Your task to perform on an android device: change the clock display to digital Image 0: 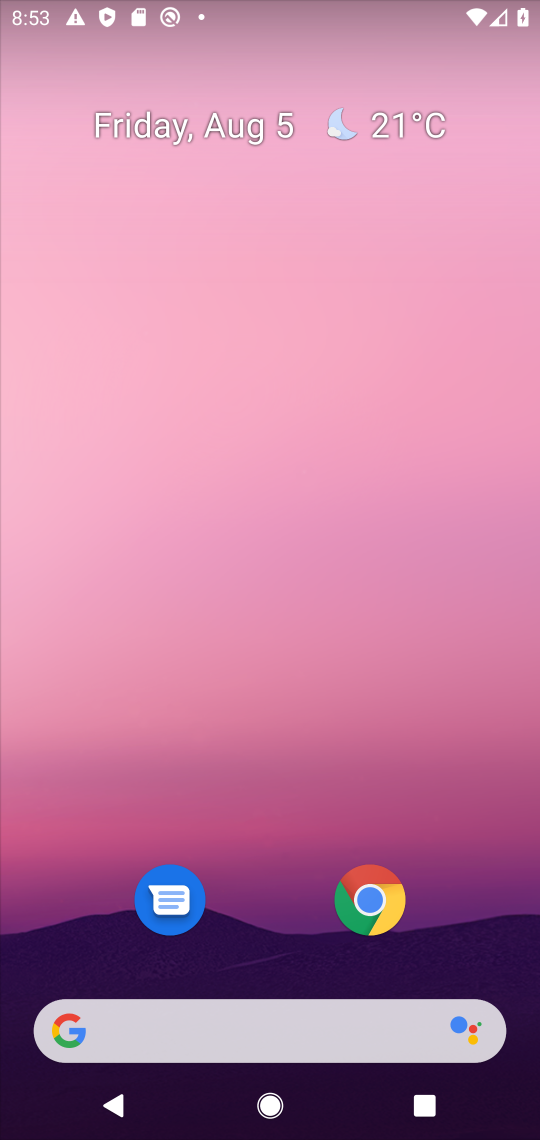
Step 0: press home button
Your task to perform on an android device: change the clock display to digital Image 1: 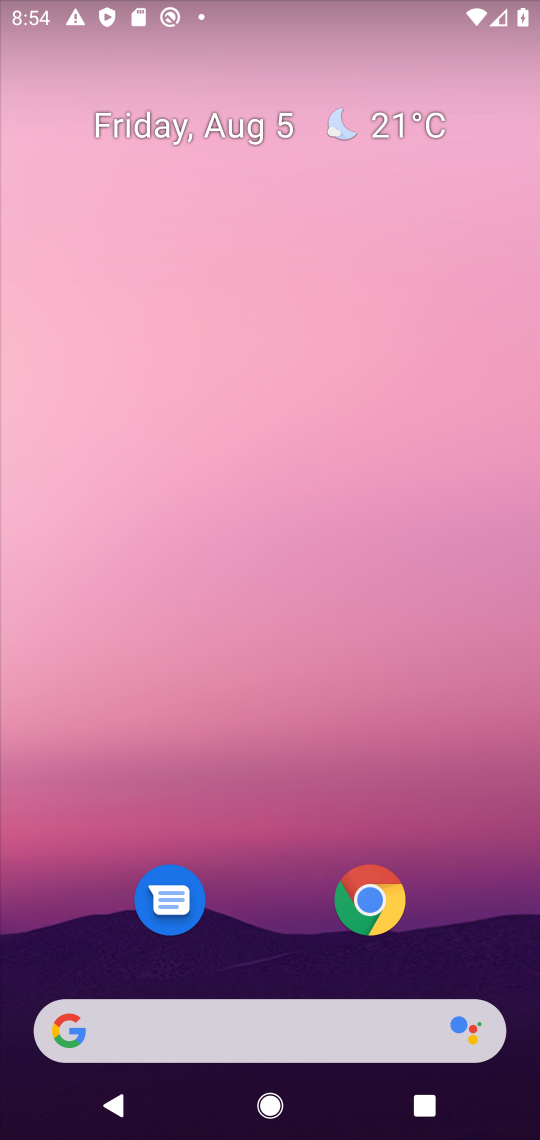
Step 1: drag from (295, 1072) to (348, 192)
Your task to perform on an android device: change the clock display to digital Image 2: 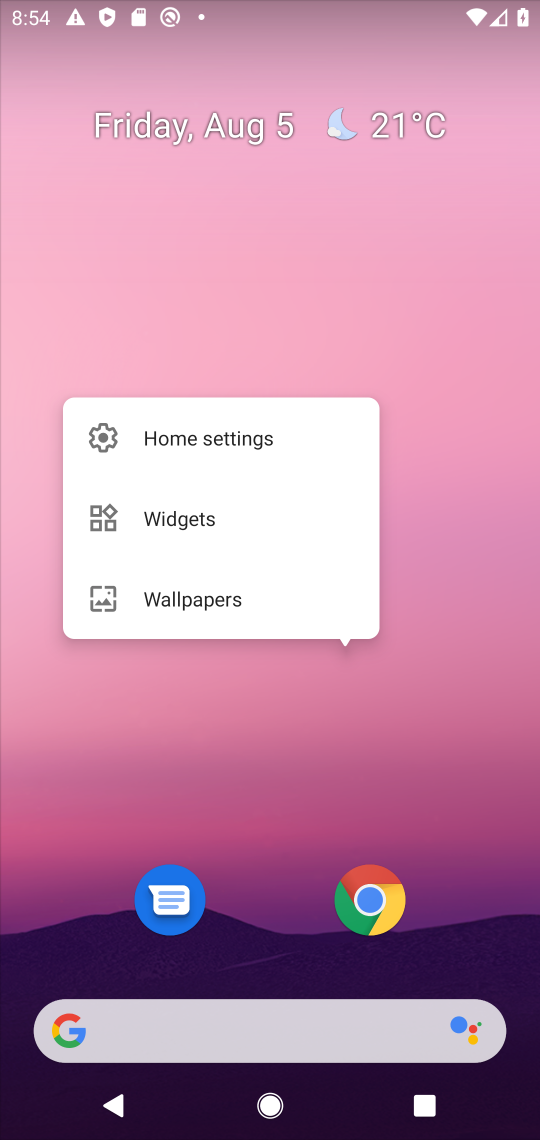
Step 2: click (497, 753)
Your task to perform on an android device: change the clock display to digital Image 3: 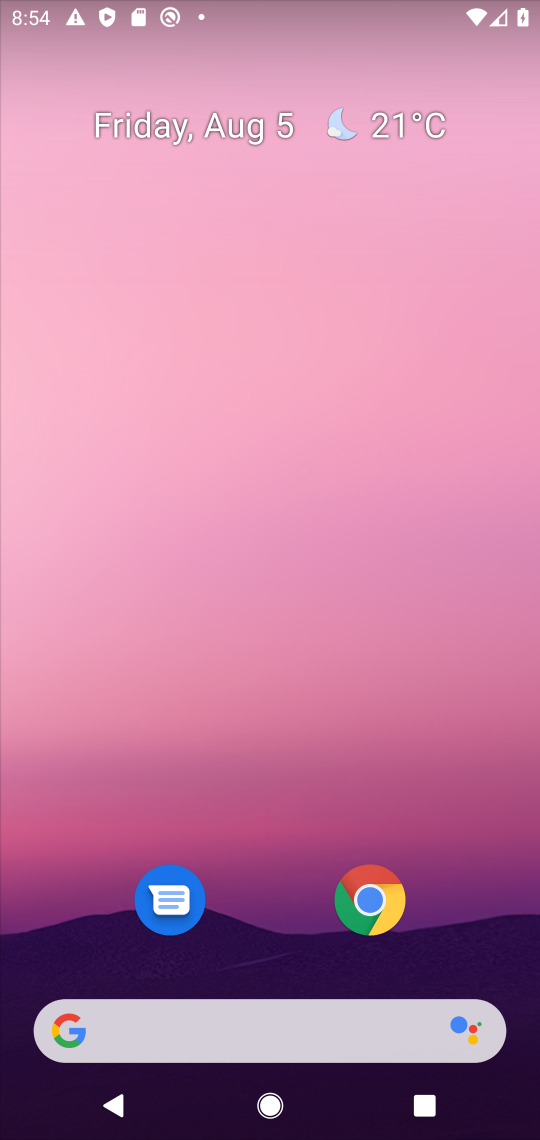
Step 3: drag from (263, 985) to (327, 188)
Your task to perform on an android device: change the clock display to digital Image 4: 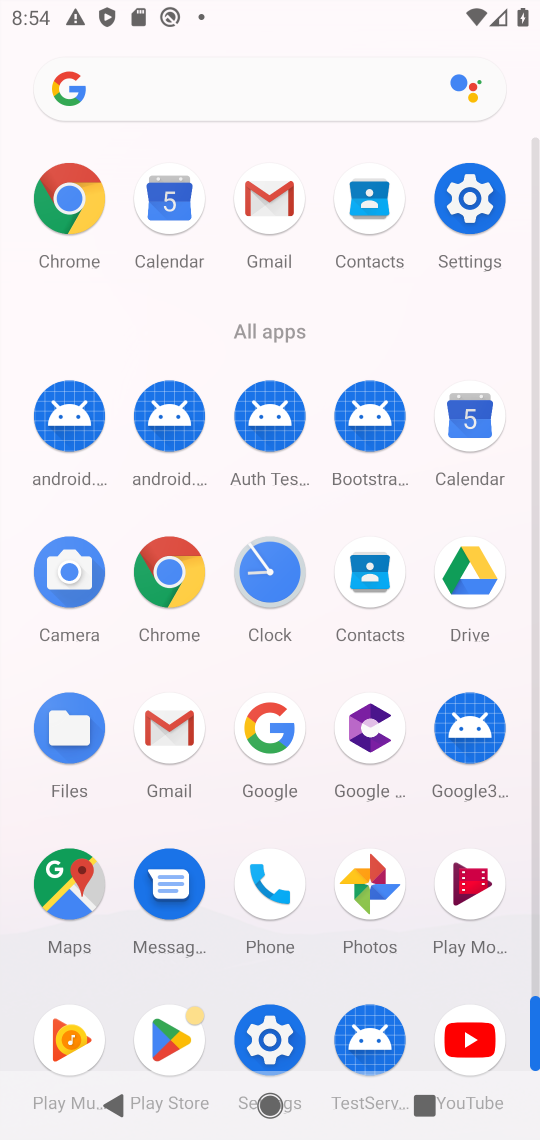
Step 4: click (261, 587)
Your task to perform on an android device: change the clock display to digital Image 5: 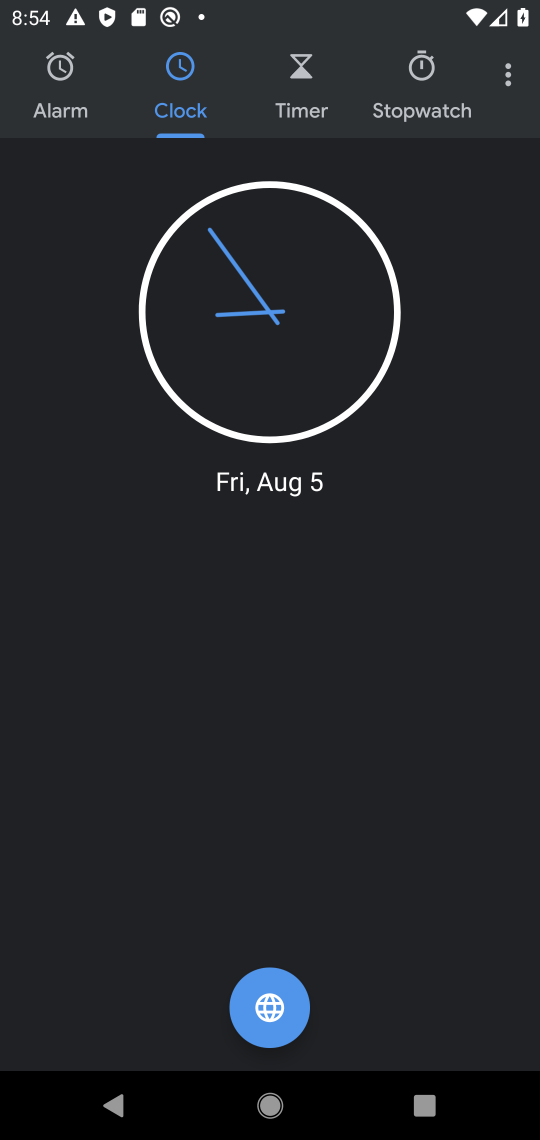
Step 5: click (513, 78)
Your task to perform on an android device: change the clock display to digital Image 6: 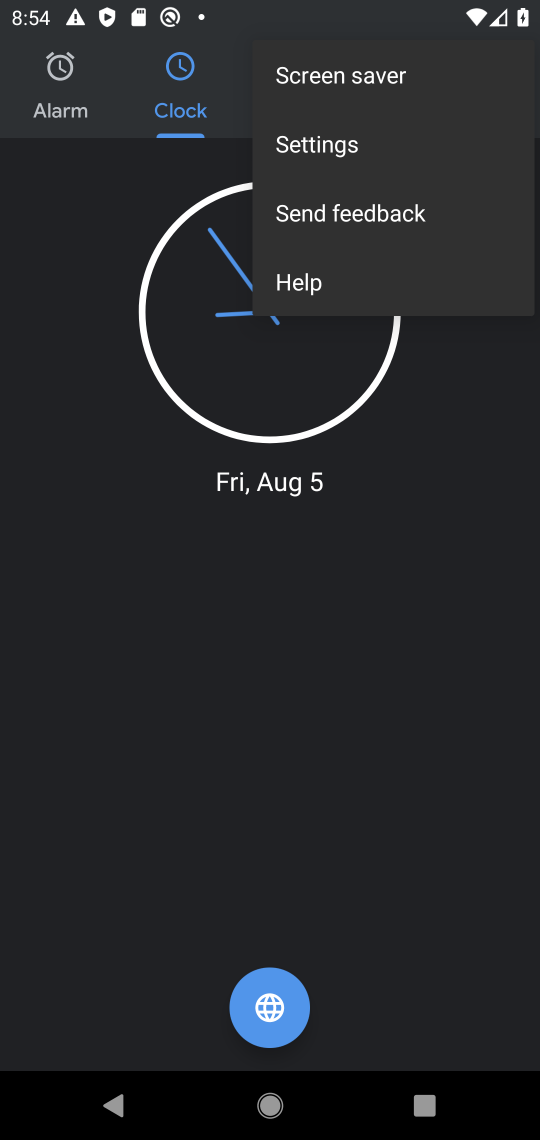
Step 6: click (341, 145)
Your task to perform on an android device: change the clock display to digital Image 7: 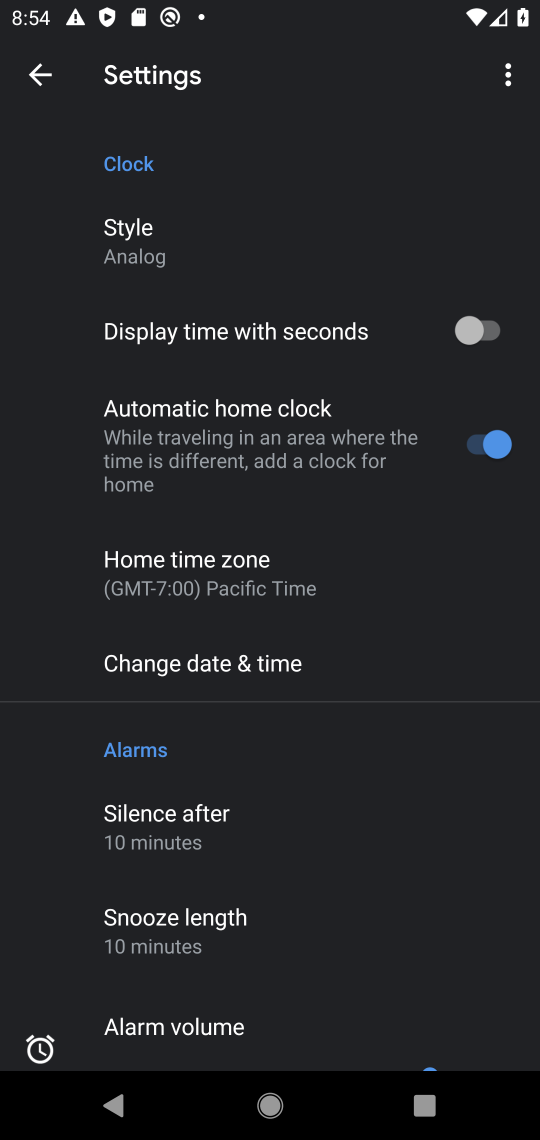
Step 7: click (104, 253)
Your task to perform on an android device: change the clock display to digital Image 8: 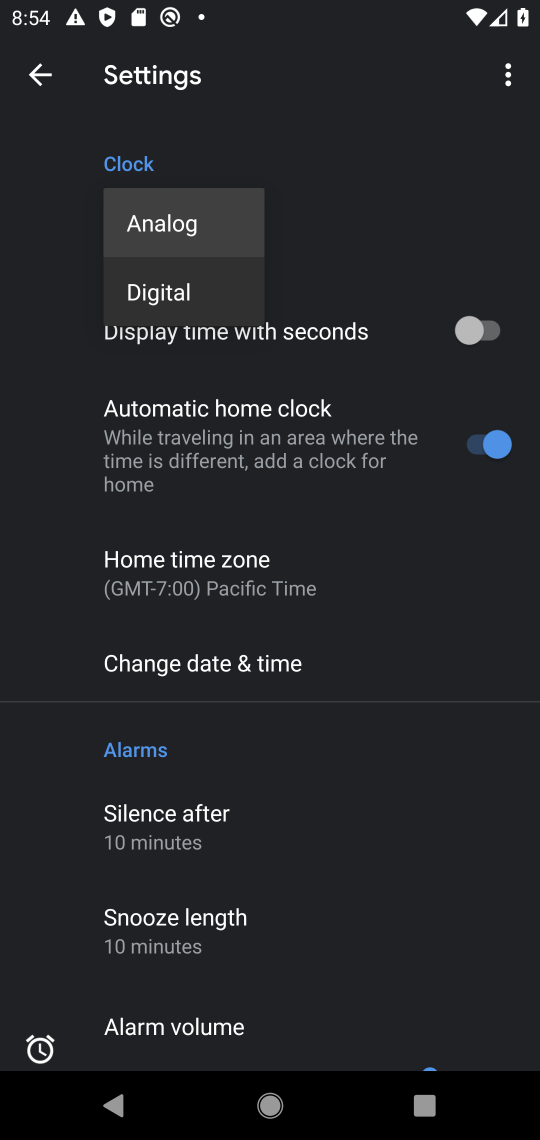
Step 8: click (147, 296)
Your task to perform on an android device: change the clock display to digital Image 9: 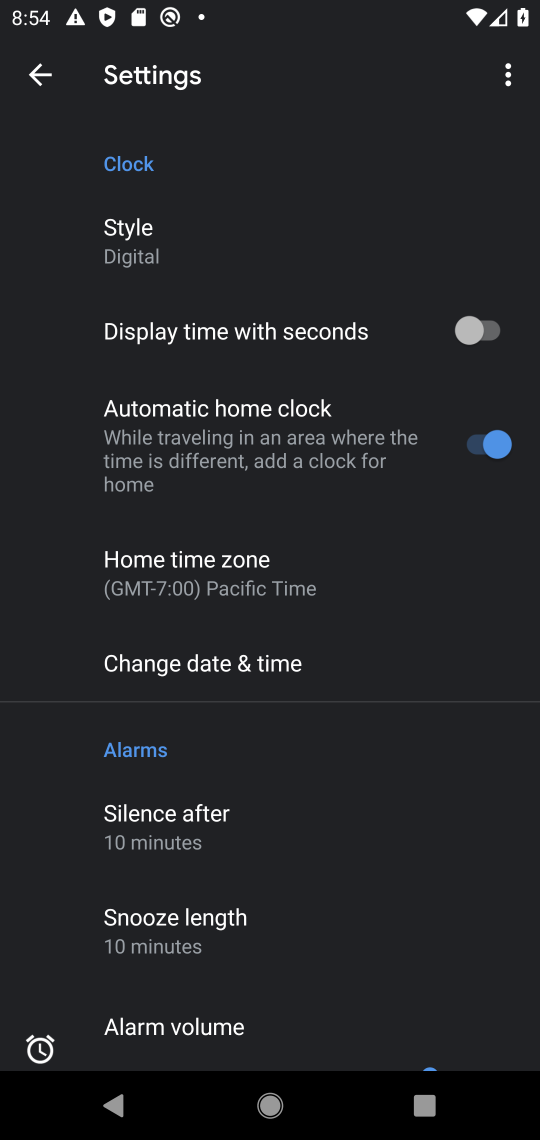
Step 9: task complete